Your task to perform on an android device: open app "Fetch Rewards" (install if not already installed), go to login, and select forgot password Image 0: 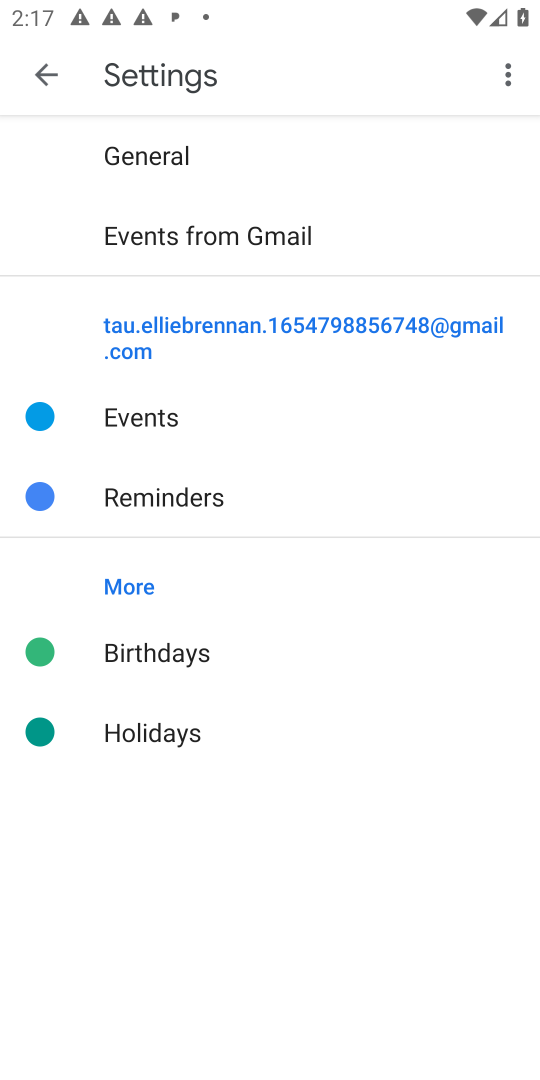
Step 0: press home button
Your task to perform on an android device: open app "Fetch Rewards" (install if not already installed), go to login, and select forgot password Image 1: 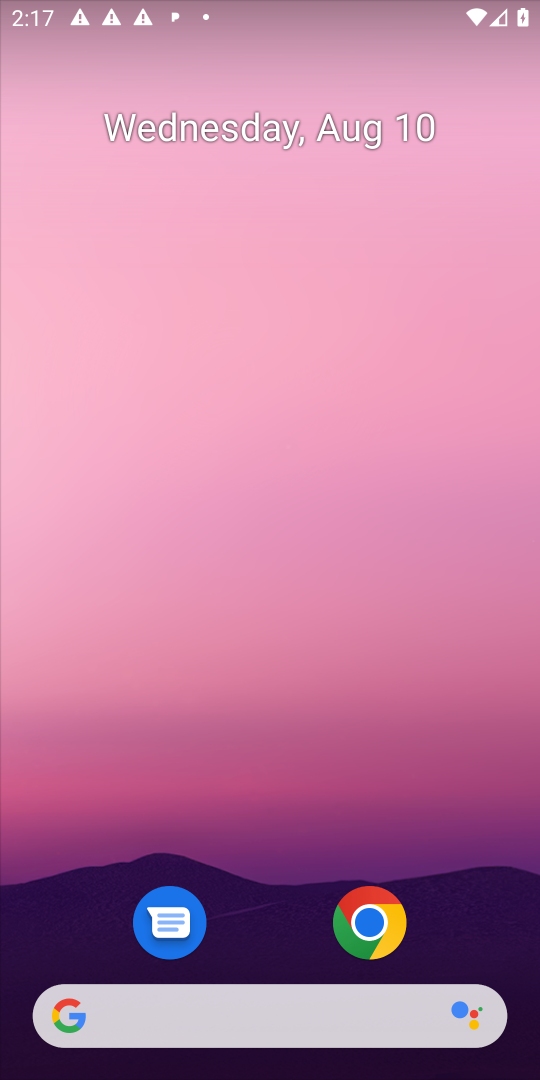
Step 1: drag from (263, 843) to (264, 236)
Your task to perform on an android device: open app "Fetch Rewards" (install if not already installed), go to login, and select forgot password Image 2: 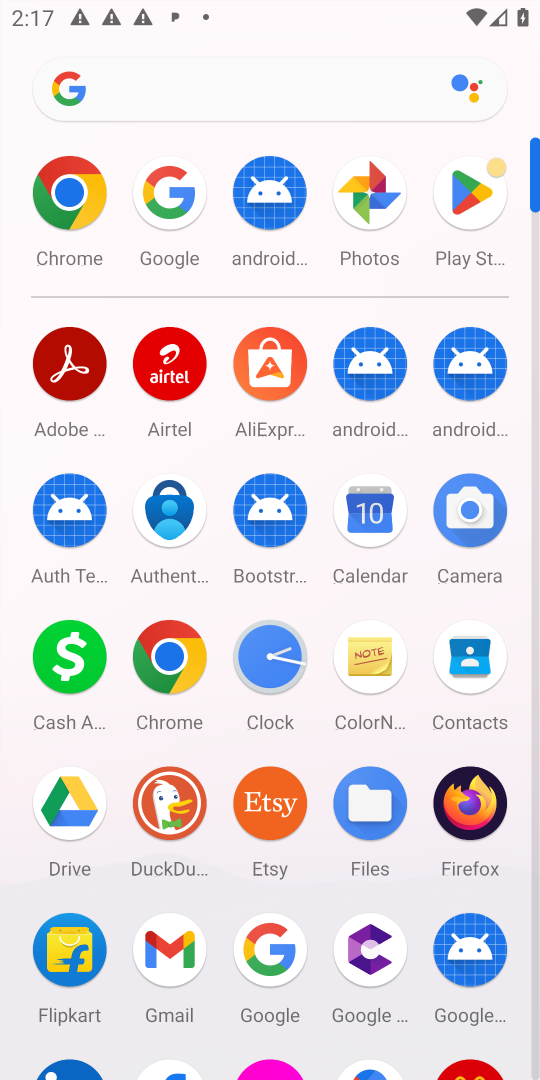
Step 2: click (478, 182)
Your task to perform on an android device: open app "Fetch Rewards" (install if not already installed), go to login, and select forgot password Image 3: 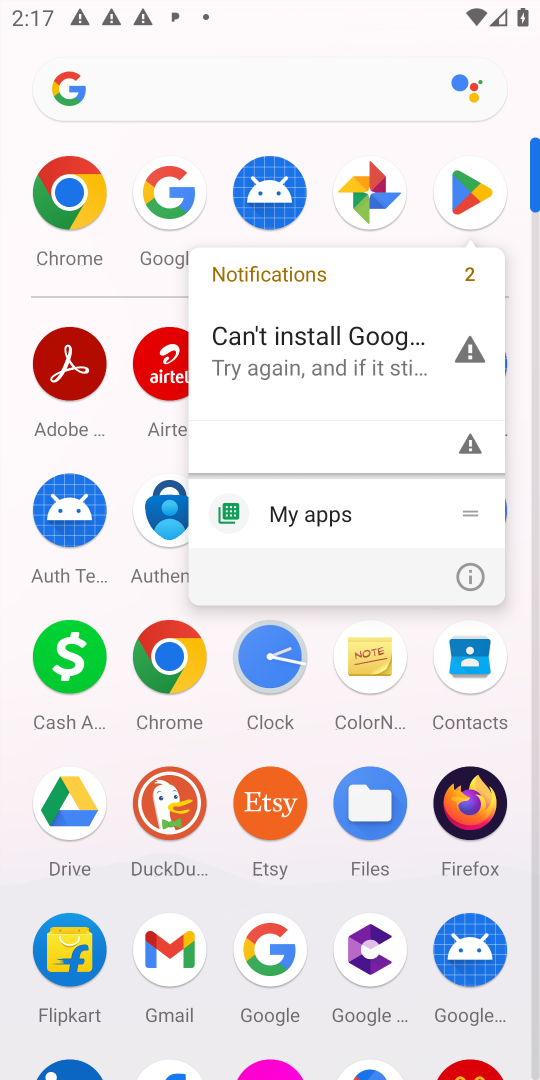
Step 3: click (471, 205)
Your task to perform on an android device: open app "Fetch Rewards" (install if not already installed), go to login, and select forgot password Image 4: 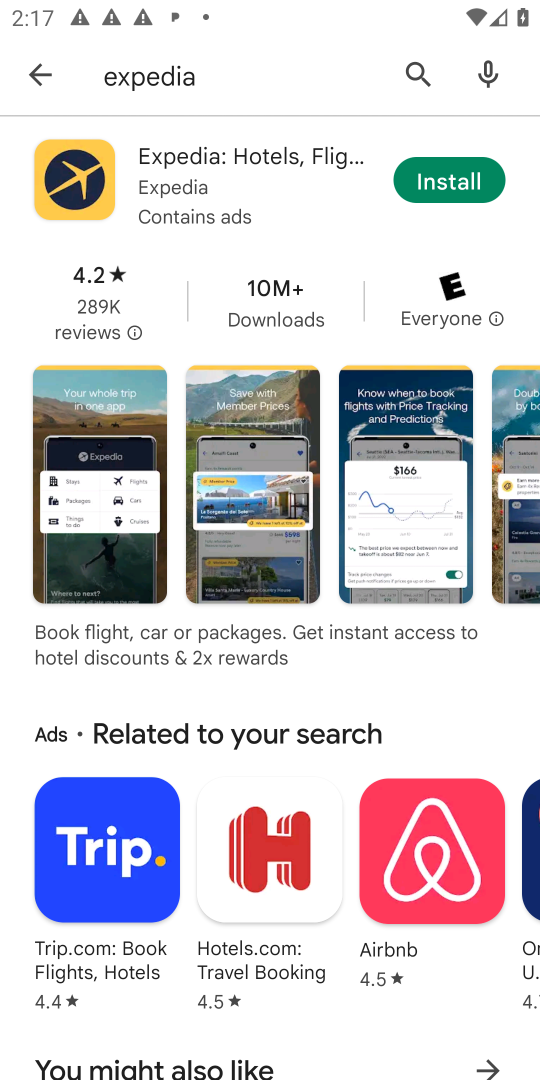
Step 4: click (41, 75)
Your task to perform on an android device: open app "Fetch Rewards" (install if not already installed), go to login, and select forgot password Image 5: 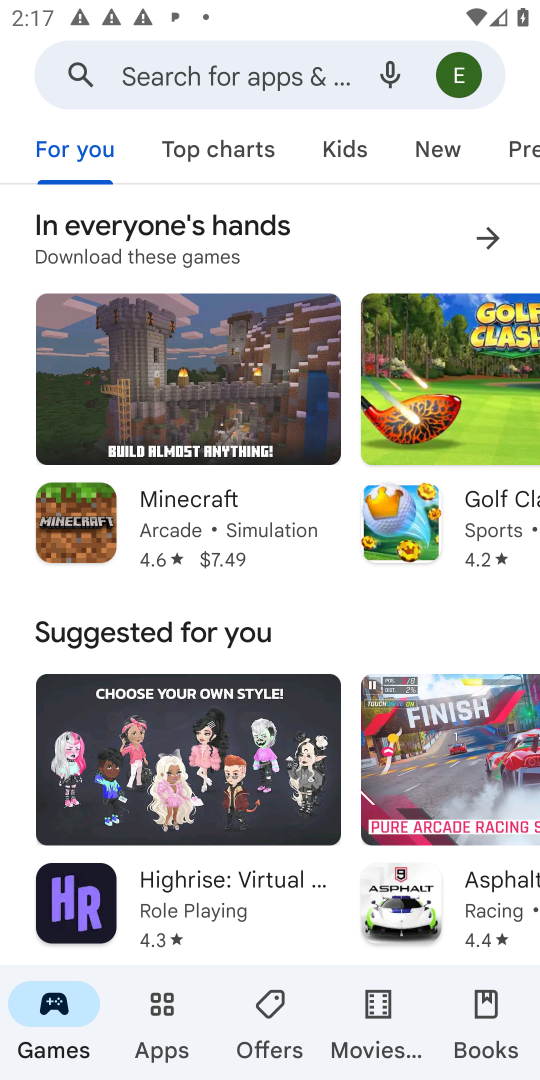
Step 5: click (143, 75)
Your task to perform on an android device: open app "Fetch Rewards" (install if not already installed), go to login, and select forgot password Image 6: 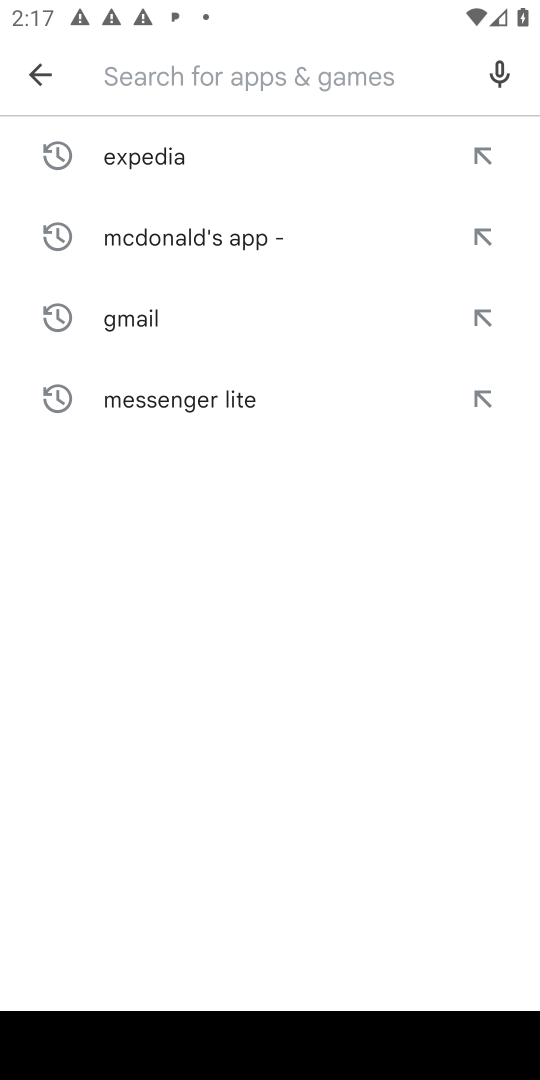
Step 6: type "Fetch Rewards"
Your task to perform on an android device: open app "Fetch Rewards" (install if not already installed), go to login, and select forgot password Image 7: 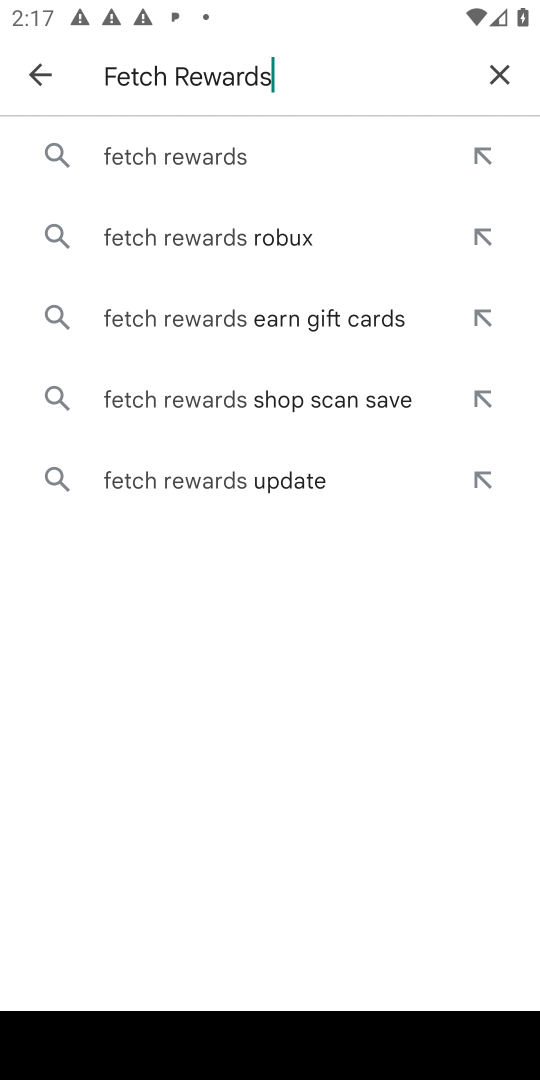
Step 7: click (174, 149)
Your task to perform on an android device: open app "Fetch Rewards" (install if not already installed), go to login, and select forgot password Image 8: 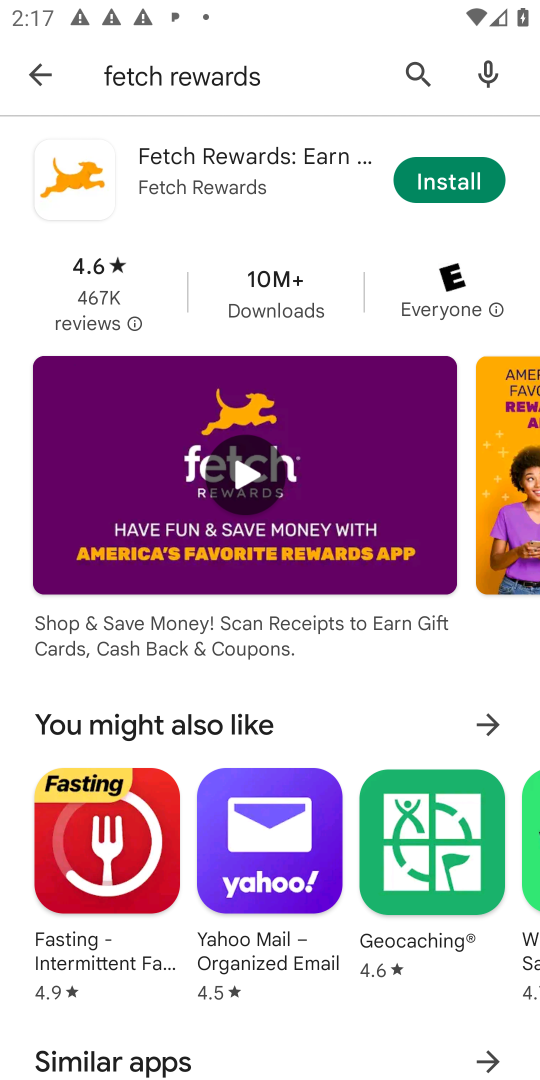
Step 8: click (474, 188)
Your task to perform on an android device: open app "Fetch Rewards" (install if not already installed), go to login, and select forgot password Image 9: 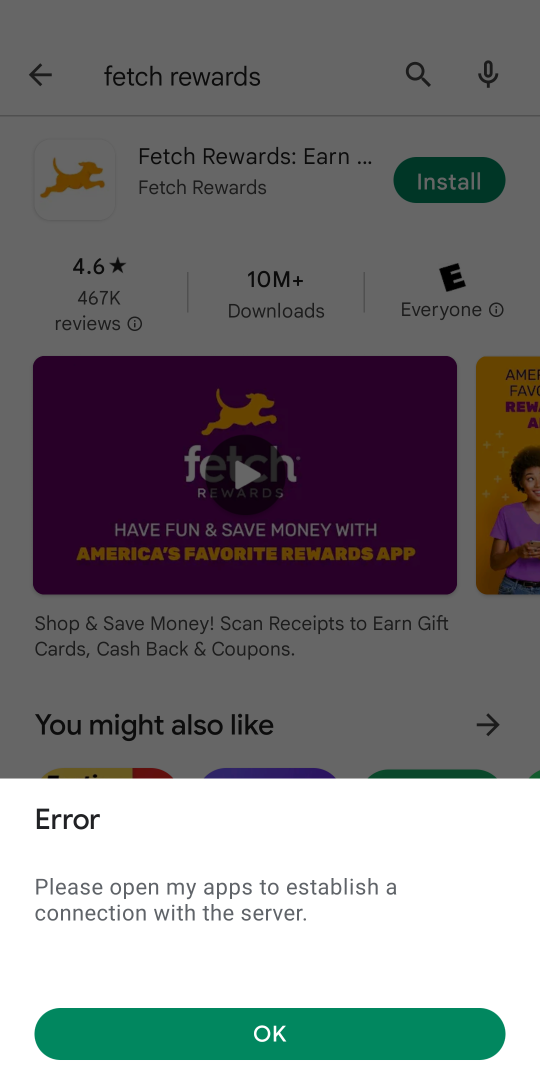
Step 9: click (267, 1036)
Your task to perform on an android device: open app "Fetch Rewards" (install if not already installed), go to login, and select forgot password Image 10: 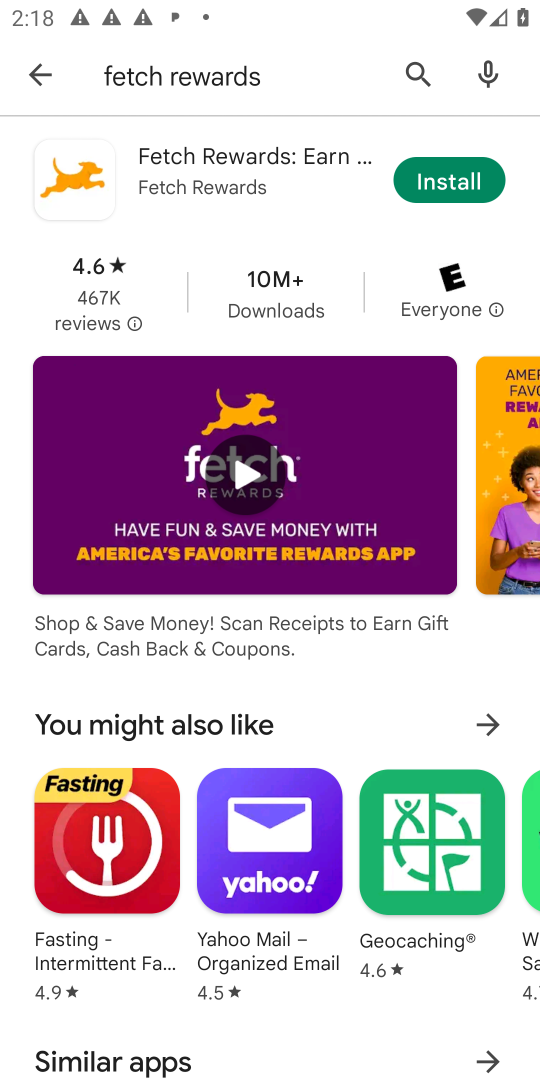
Step 10: click (427, 187)
Your task to perform on an android device: open app "Fetch Rewards" (install if not already installed), go to login, and select forgot password Image 11: 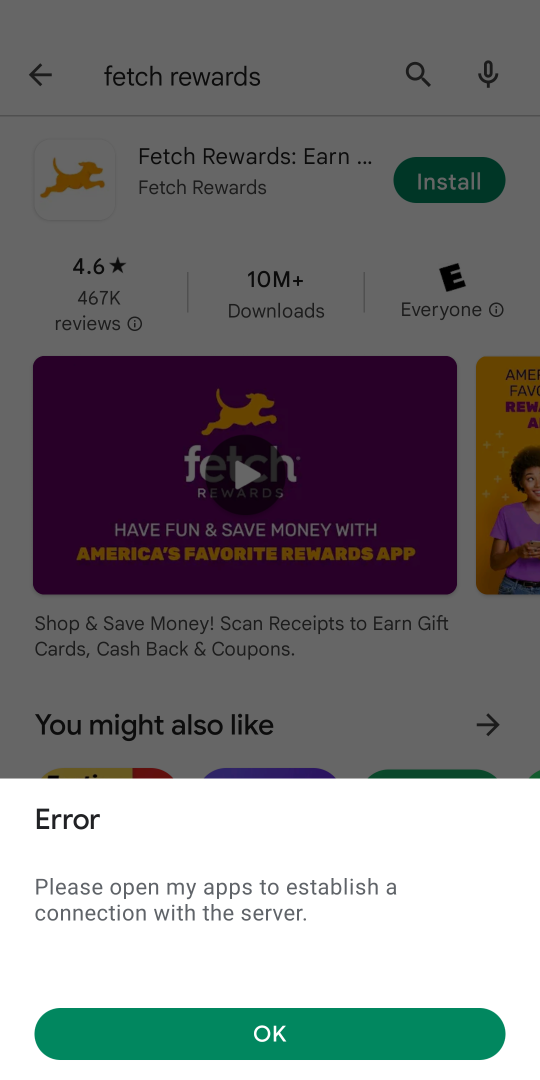
Step 11: click (277, 1022)
Your task to perform on an android device: open app "Fetch Rewards" (install if not already installed), go to login, and select forgot password Image 12: 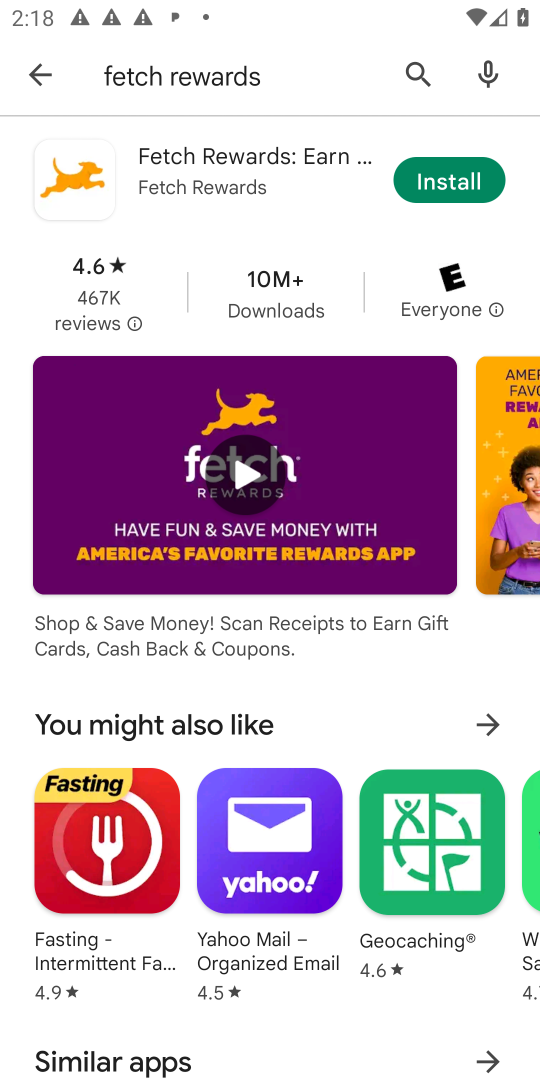
Step 12: task complete